Your task to perform on an android device: Open eBay Image 0: 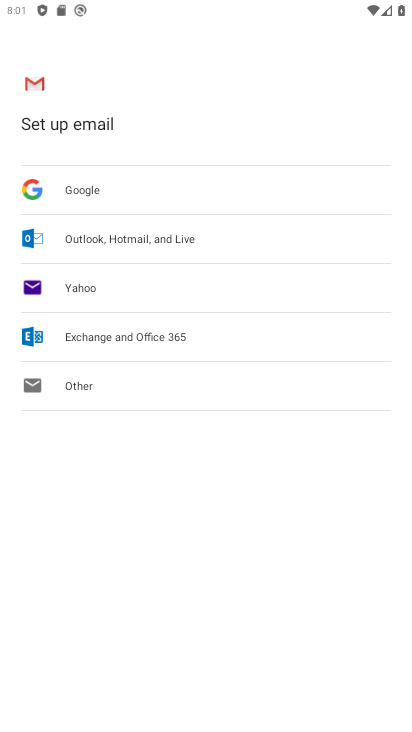
Step 0: press home button
Your task to perform on an android device: Open eBay Image 1: 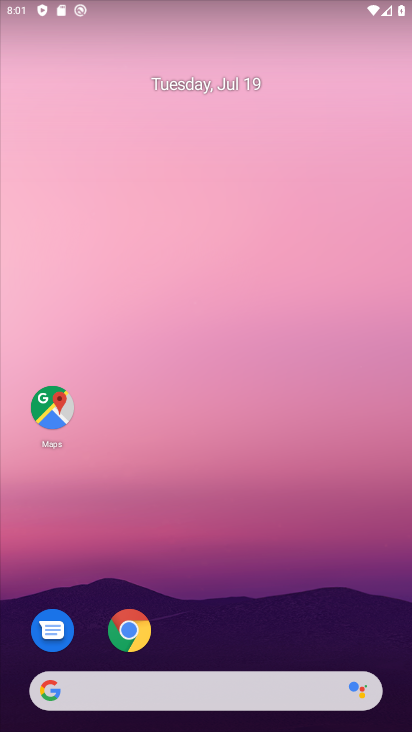
Step 1: drag from (181, 686) to (181, 235)
Your task to perform on an android device: Open eBay Image 2: 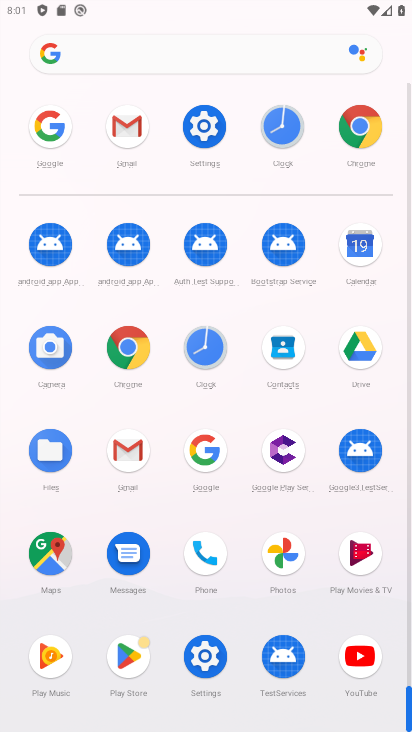
Step 2: click (130, 363)
Your task to perform on an android device: Open eBay Image 3: 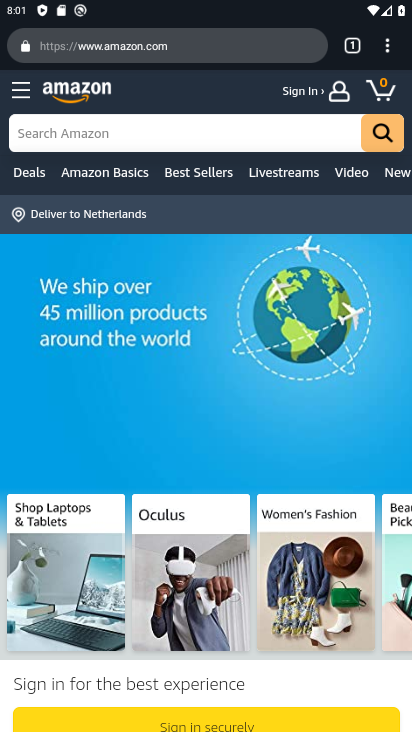
Step 3: click (270, 49)
Your task to perform on an android device: Open eBay Image 4: 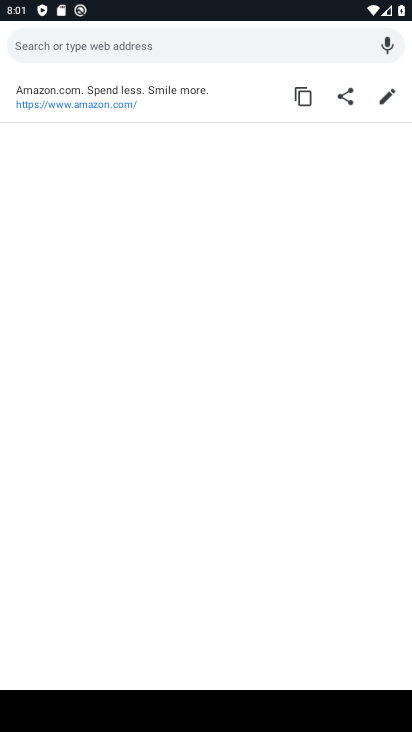
Step 4: type "ebay"
Your task to perform on an android device: Open eBay Image 5: 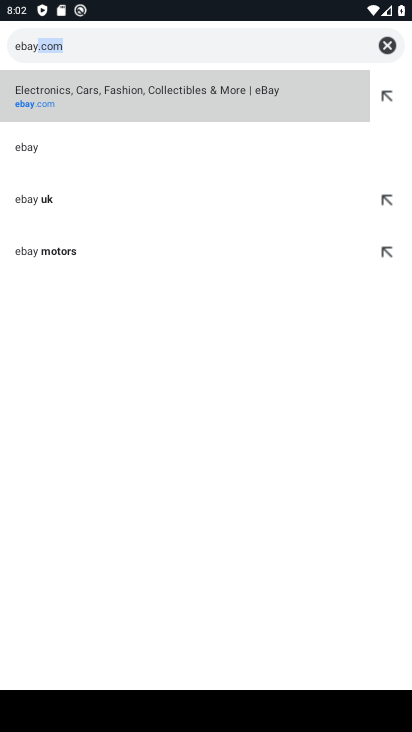
Step 5: click (184, 104)
Your task to perform on an android device: Open eBay Image 6: 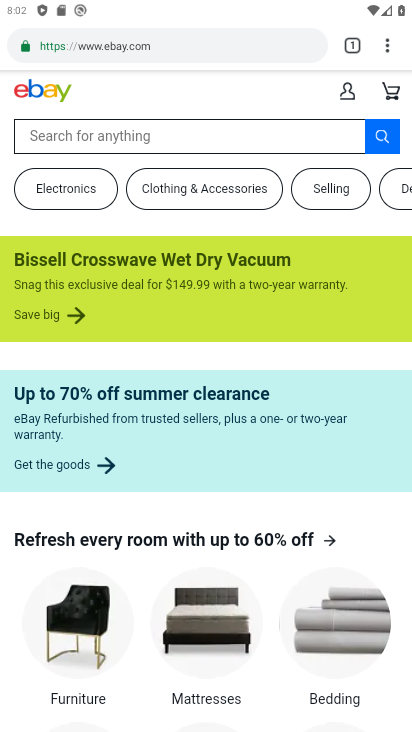
Step 6: task complete